Your task to perform on an android device: Open network settings Image 0: 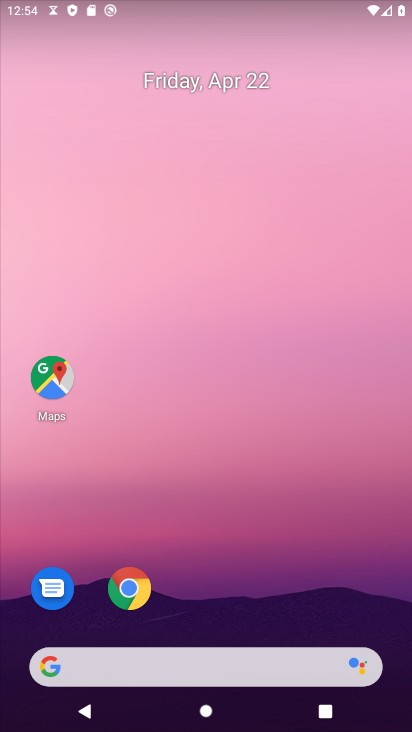
Step 0: drag from (246, 698) to (372, 146)
Your task to perform on an android device: Open network settings Image 1: 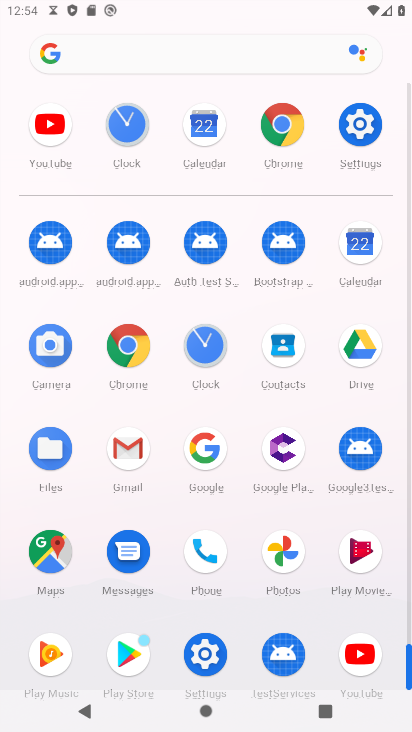
Step 1: click (353, 128)
Your task to perform on an android device: Open network settings Image 2: 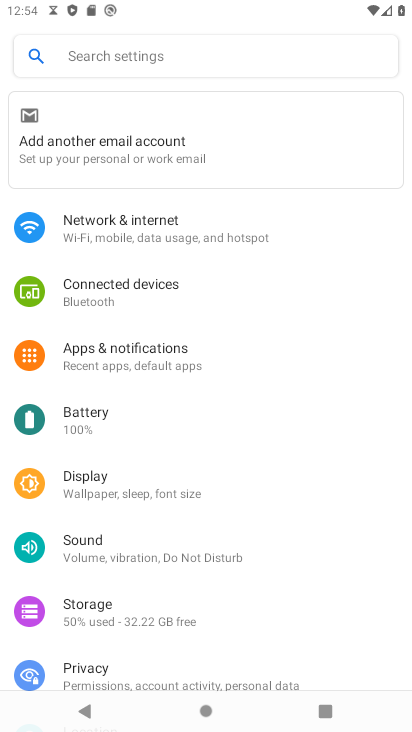
Step 2: click (98, 218)
Your task to perform on an android device: Open network settings Image 3: 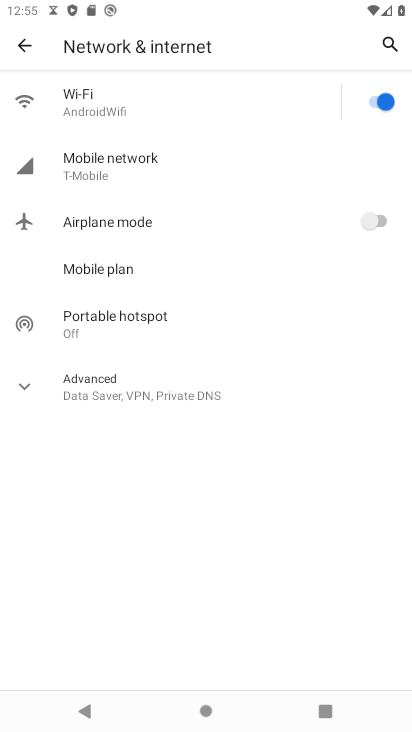
Step 3: click (138, 170)
Your task to perform on an android device: Open network settings Image 4: 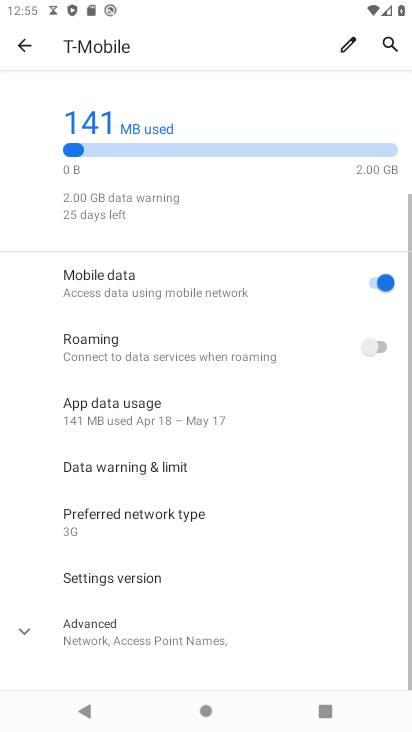
Step 4: task complete